Your task to perform on an android device: Open calendar and show me the first week of next month Image 0: 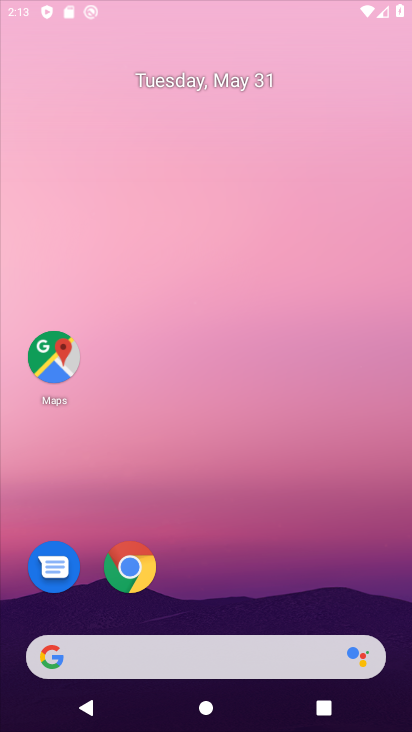
Step 0: drag from (227, 593) to (193, 127)
Your task to perform on an android device: Open calendar and show me the first week of next month Image 1: 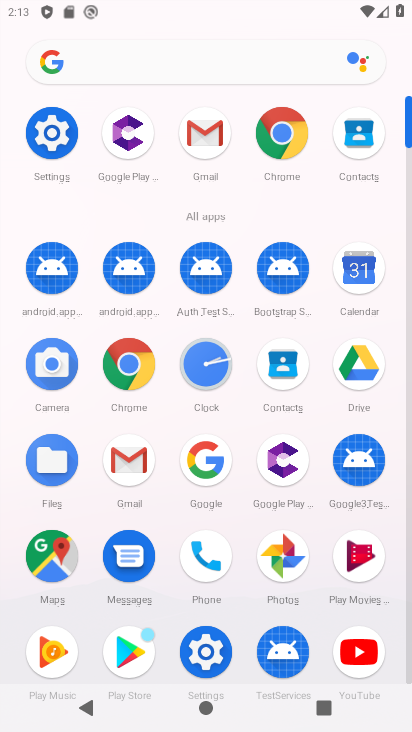
Step 1: click (364, 280)
Your task to perform on an android device: Open calendar and show me the first week of next month Image 2: 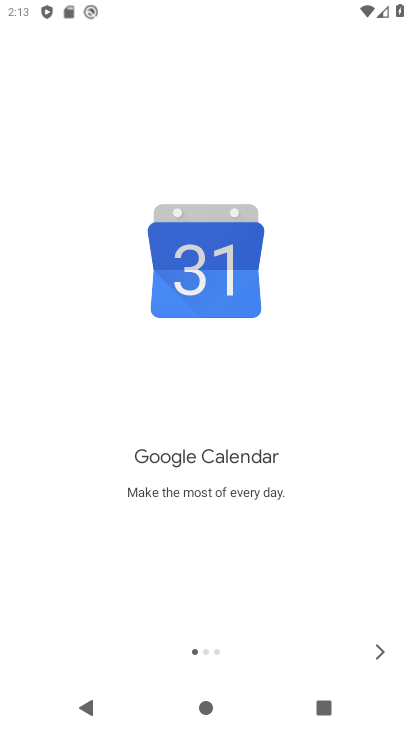
Step 2: click (385, 651)
Your task to perform on an android device: Open calendar and show me the first week of next month Image 3: 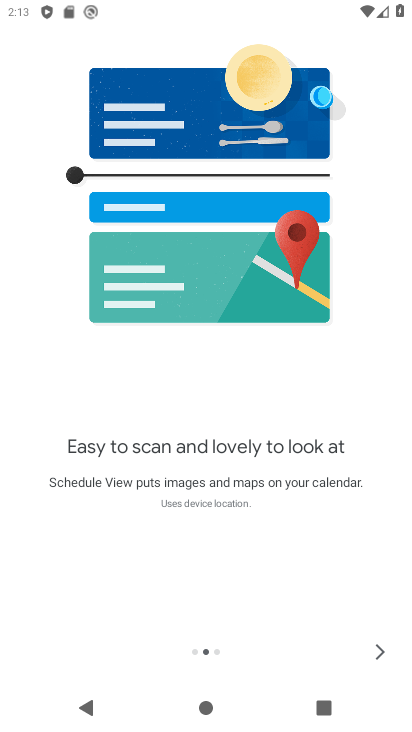
Step 3: click (385, 651)
Your task to perform on an android device: Open calendar and show me the first week of next month Image 4: 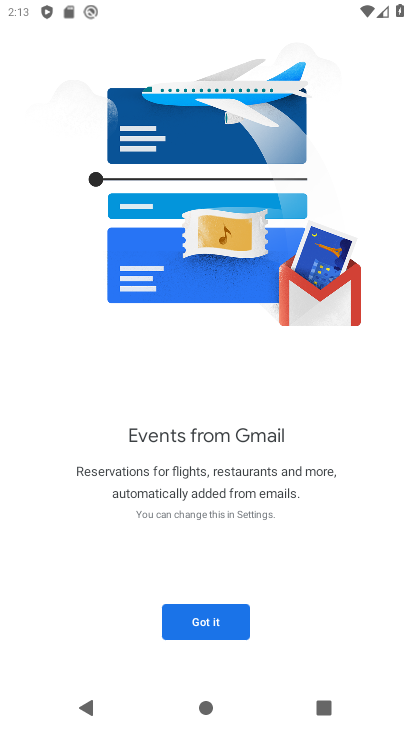
Step 4: click (229, 619)
Your task to perform on an android device: Open calendar and show me the first week of next month Image 5: 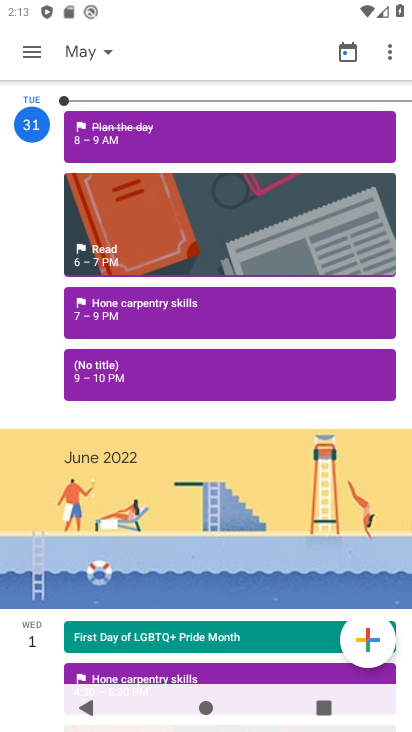
Step 5: click (101, 59)
Your task to perform on an android device: Open calendar and show me the first week of next month Image 6: 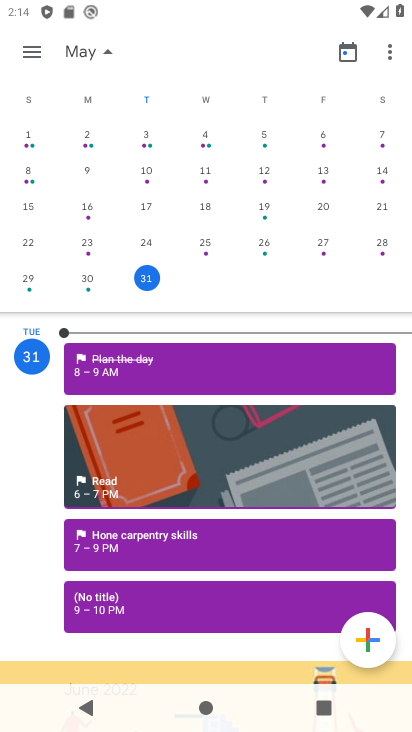
Step 6: drag from (403, 218) to (11, 234)
Your task to perform on an android device: Open calendar and show me the first week of next month Image 7: 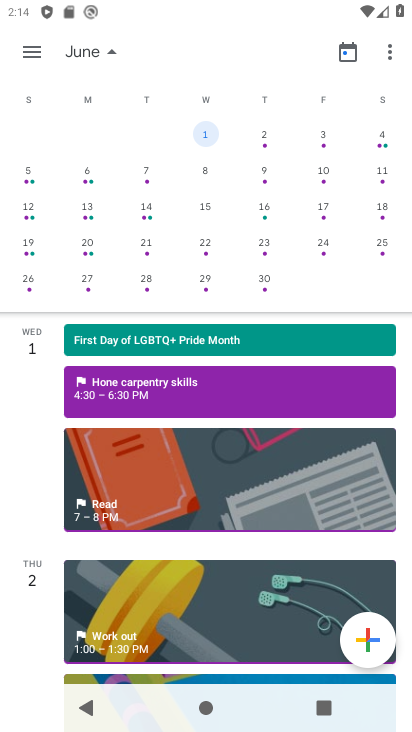
Step 7: click (209, 136)
Your task to perform on an android device: Open calendar and show me the first week of next month Image 8: 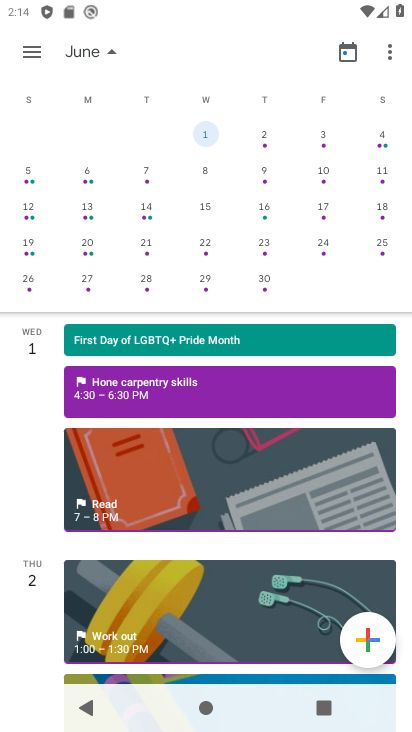
Step 8: click (30, 52)
Your task to perform on an android device: Open calendar and show me the first week of next month Image 9: 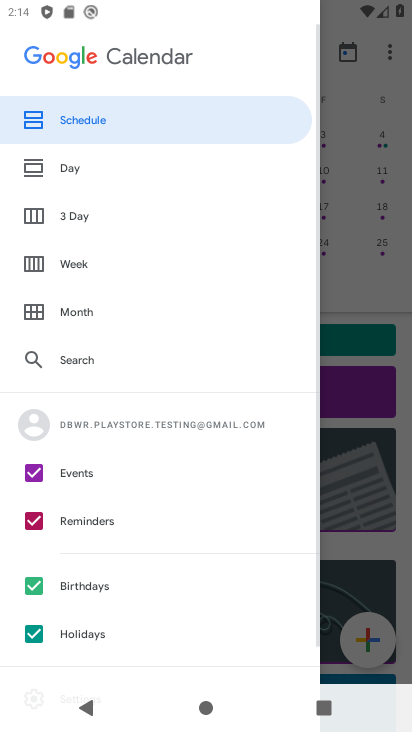
Step 9: click (80, 267)
Your task to perform on an android device: Open calendar and show me the first week of next month Image 10: 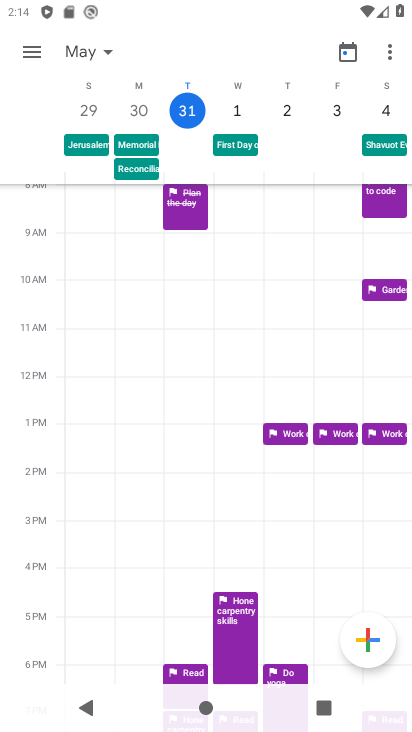
Step 10: click (104, 53)
Your task to perform on an android device: Open calendar and show me the first week of next month Image 11: 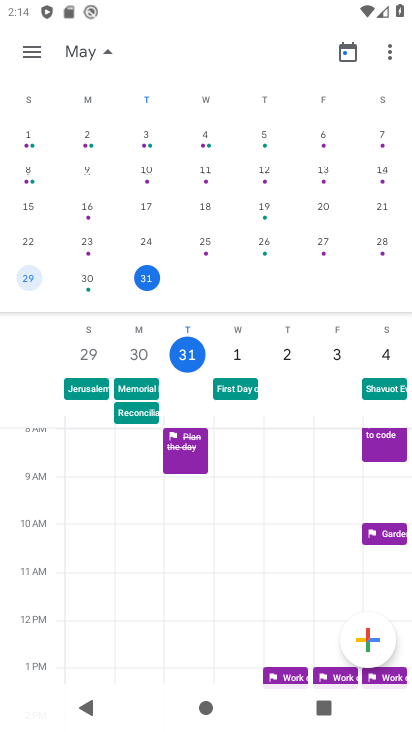
Step 11: drag from (382, 223) to (37, 204)
Your task to perform on an android device: Open calendar and show me the first week of next month Image 12: 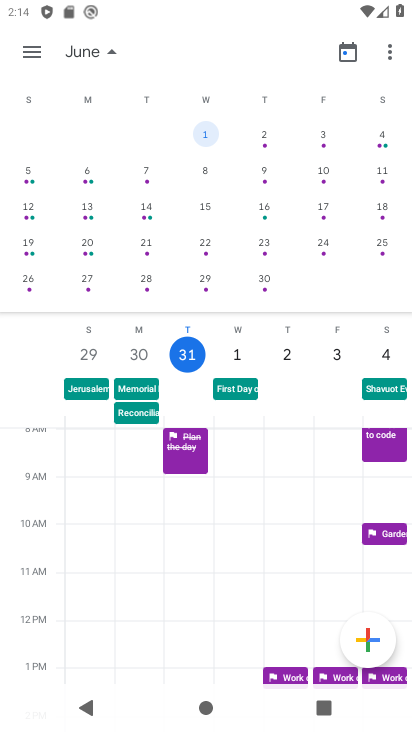
Step 12: click (206, 131)
Your task to perform on an android device: Open calendar and show me the first week of next month Image 13: 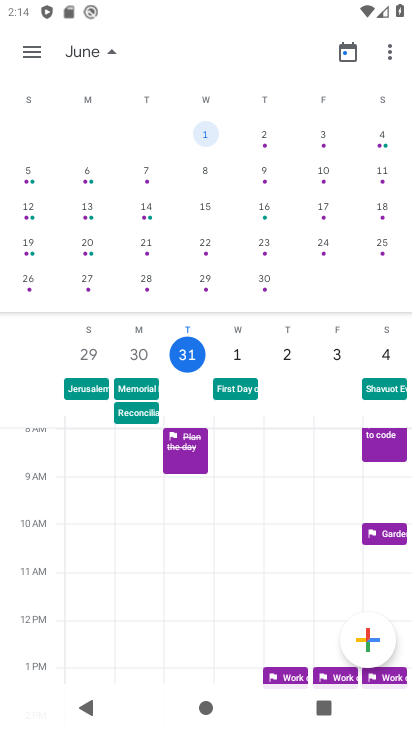
Step 13: task complete